Your task to perform on an android device: Open internet settings Image 0: 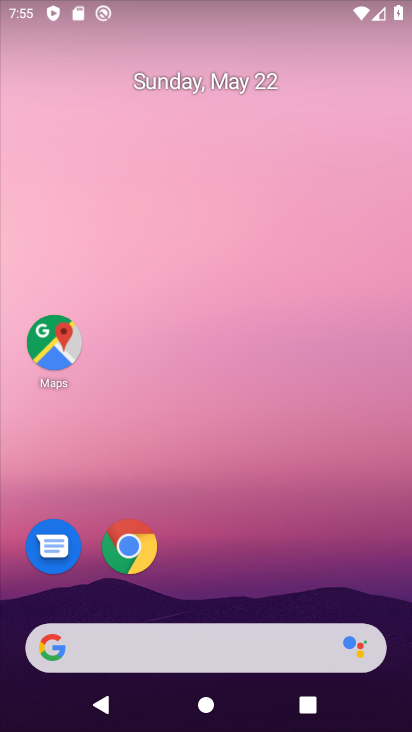
Step 0: press home button
Your task to perform on an android device: Open internet settings Image 1: 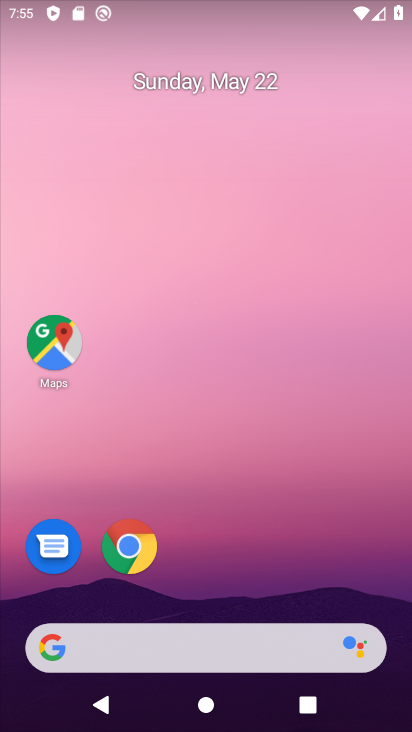
Step 1: drag from (157, 639) to (291, 112)
Your task to perform on an android device: Open internet settings Image 2: 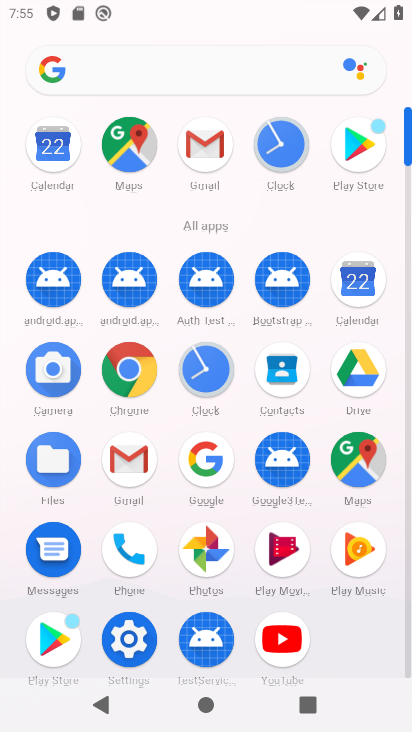
Step 2: click (135, 653)
Your task to perform on an android device: Open internet settings Image 3: 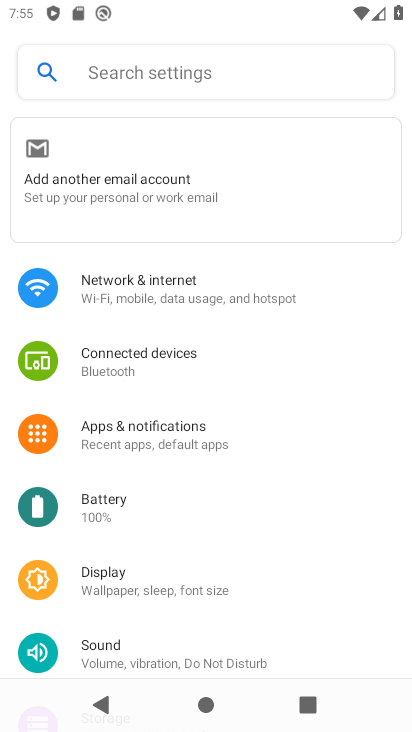
Step 3: click (190, 289)
Your task to perform on an android device: Open internet settings Image 4: 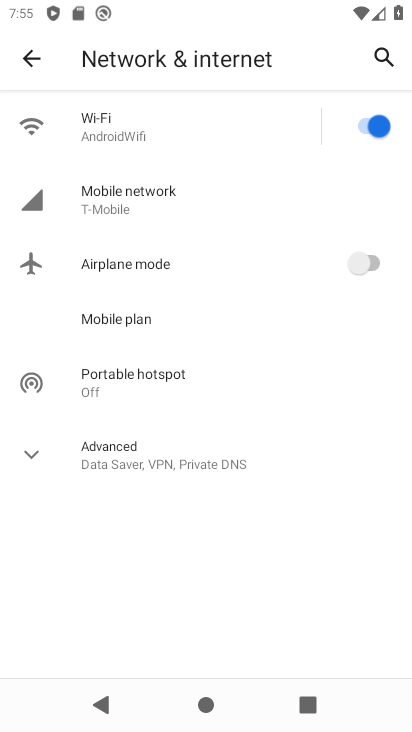
Step 4: task complete